Your task to perform on an android device: turn pop-ups on in chrome Image 0: 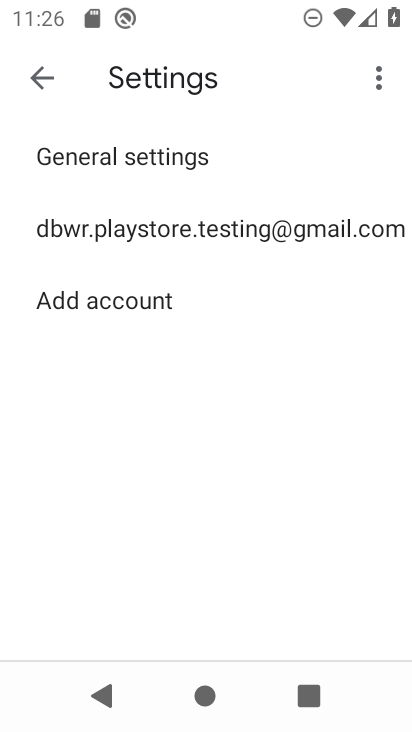
Step 0: press home button
Your task to perform on an android device: turn pop-ups on in chrome Image 1: 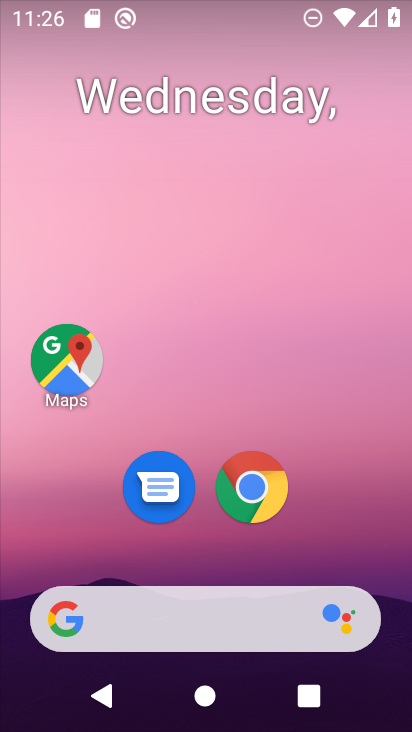
Step 1: click (249, 487)
Your task to perform on an android device: turn pop-ups on in chrome Image 2: 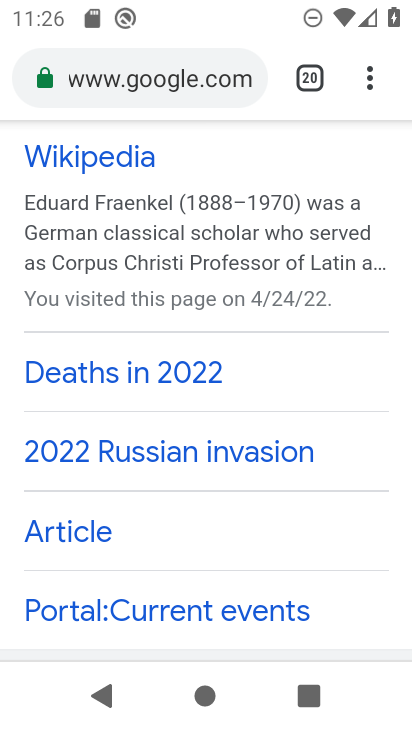
Step 2: press home button
Your task to perform on an android device: turn pop-ups on in chrome Image 3: 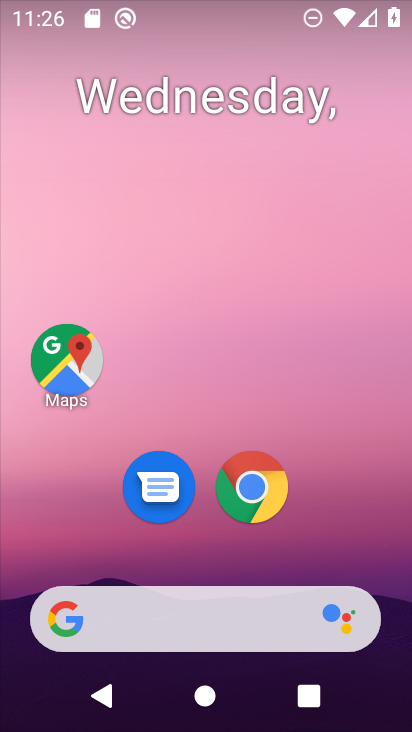
Step 3: click (254, 491)
Your task to perform on an android device: turn pop-ups on in chrome Image 4: 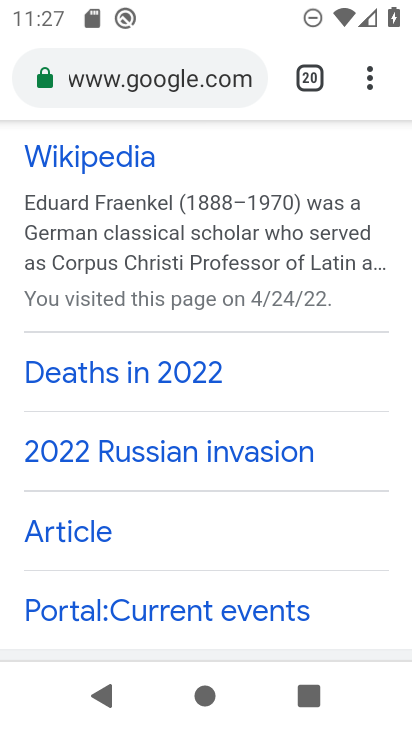
Step 4: drag from (300, 358) to (300, 610)
Your task to perform on an android device: turn pop-ups on in chrome Image 5: 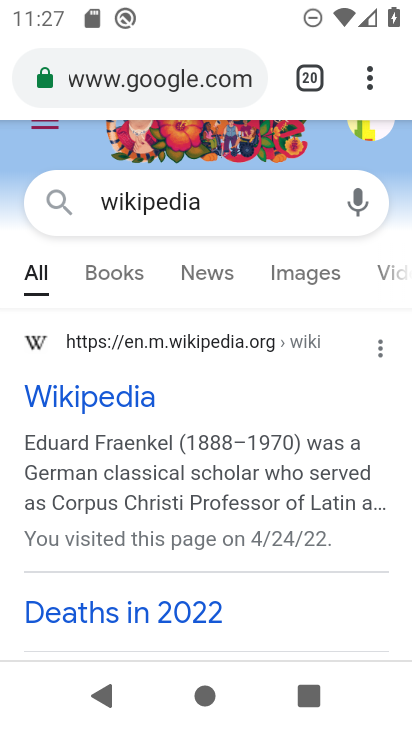
Step 5: drag from (240, 206) to (190, 580)
Your task to perform on an android device: turn pop-ups on in chrome Image 6: 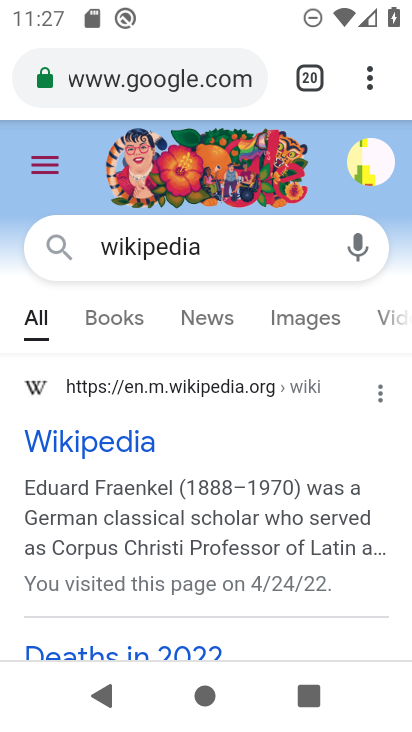
Step 6: click (370, 72)
Your task to perform on an android device: turn pop-ups on in chrome Image 7: 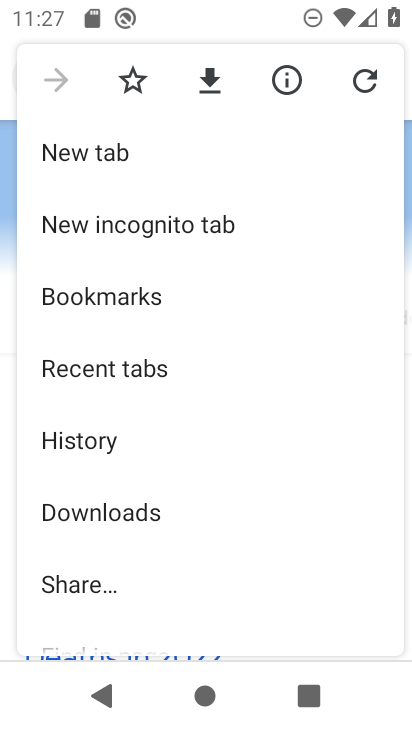
Step 7: drag from (310, 458) to (285, 121)
Your task to perform on an android device: turn pop-ups on in chrome Image 8: 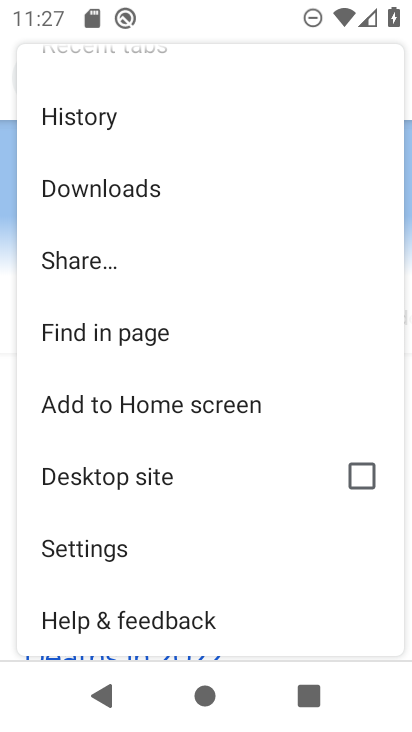
Step 8: click (89, 543)
Your task to perform on an android device: turn pop-ups on in chrome Image 9: 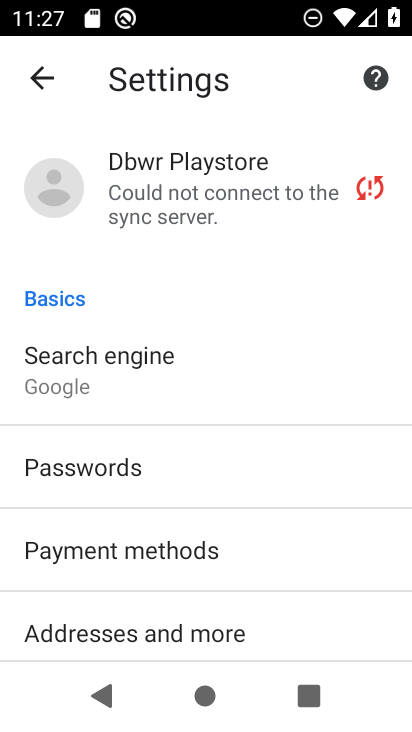
Step 9: drag from (218, 486) to (187, 162)
Your task to perform on an android device: turn pop-ups on in chrome Image 10: 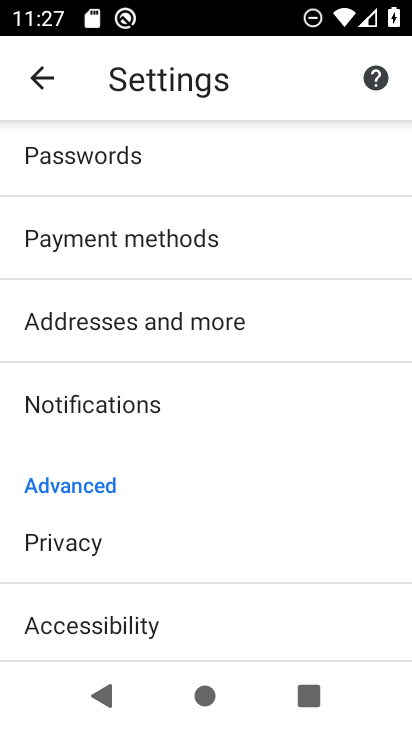
Step 10: drag from (217, 456) to (240, 127)
Your task to perform on an android device: turn pop-ups on in chrome Image 11: 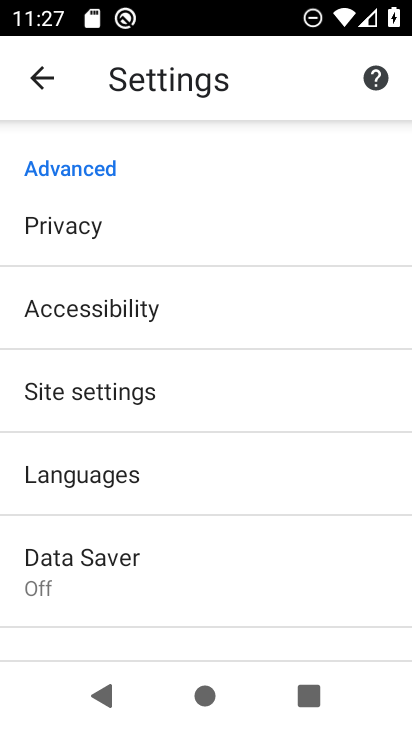
Step 11: click (117, 382)
Your task to perform on an android device: turn pop-ups on in chrome Image 12: 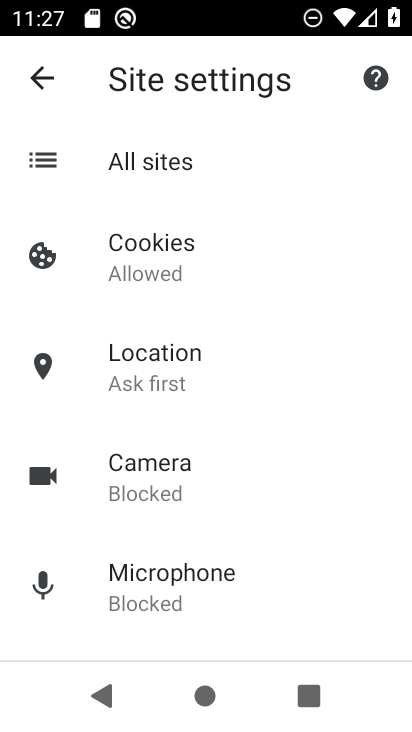
Step 12: drag from (267, 506) to (244, 51)
Your task to perform on an android device: turn pop-ups on in chrome Image 13: 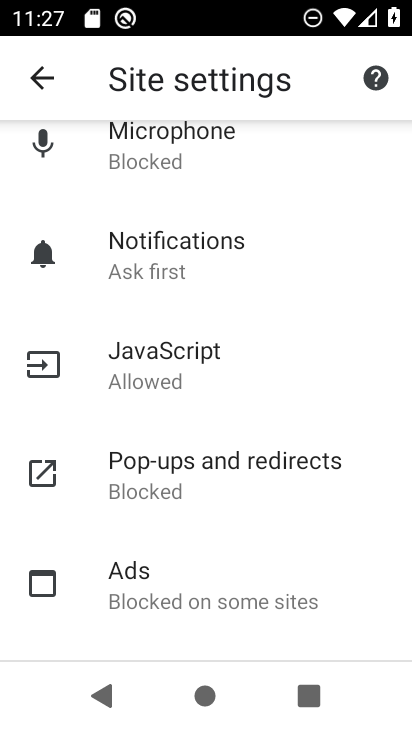
Step 13: click (133, 463)
Your task to perform on an android device: turn pop-ups on in chrome Image 14: 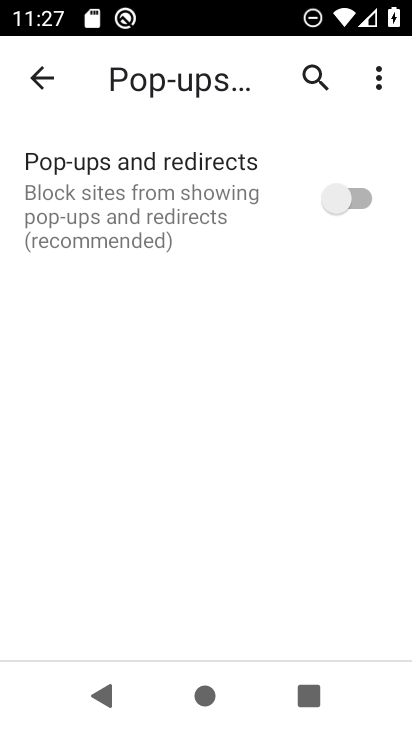
Step 14: click (331, 194)
Your task to perform on an android device: turn pop-ups on in chrome Image 15: 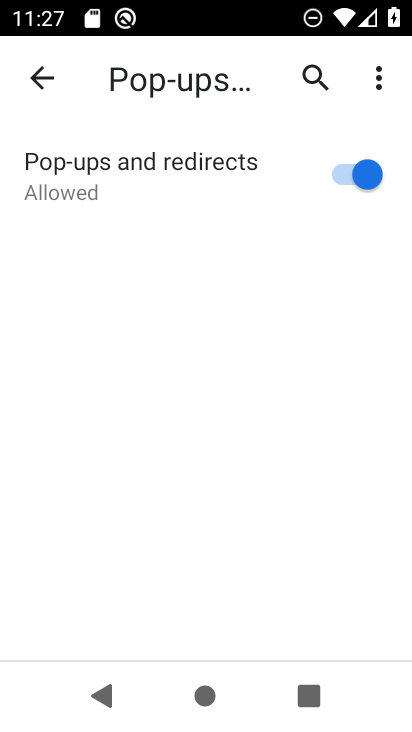
Step 15: task complete